Your task to perform on an android device: turn off improve location accuracy Image 0: 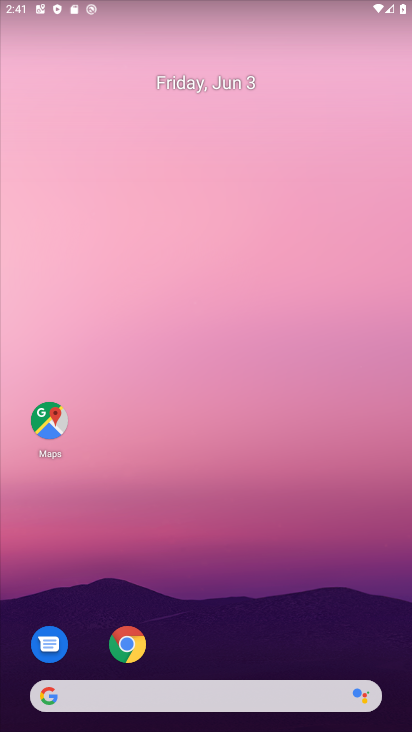
Step 0: drag from (235, 639) to (231, 340)
Your task to perform on an android device: turn off improve location accuracy Image 1: 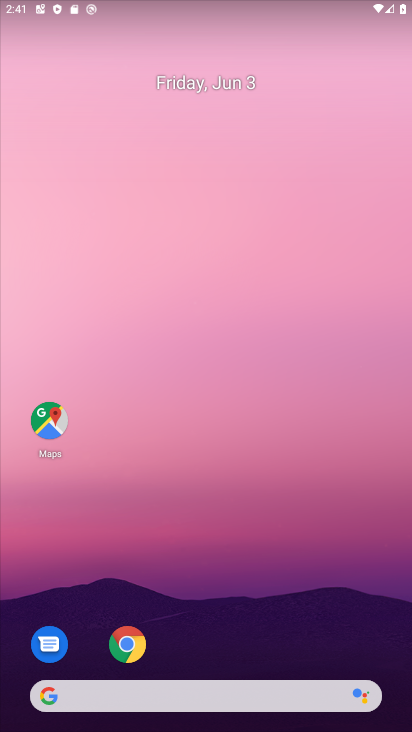
Step 1: drag from (221, 660) to (226, 253)
Your task to perform on an android device: turn off improve location accuracy Image 2: 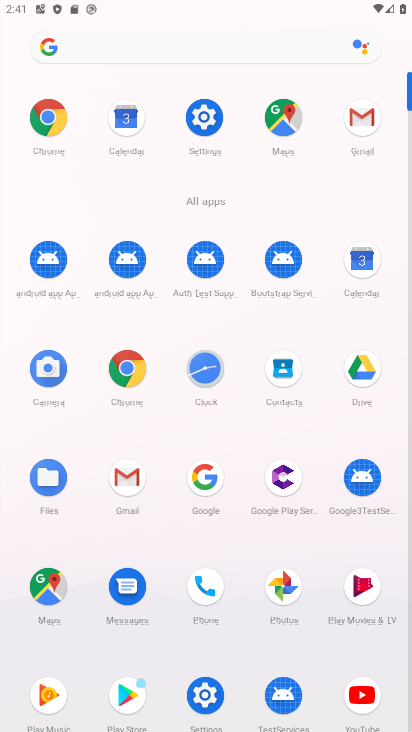
Step 2: click (214, 119)
Your task to perform on an android device: turn off improve location accuracy Image 3: 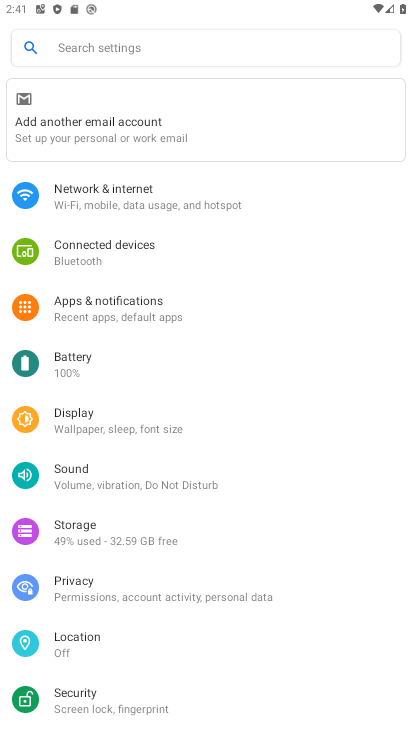
Step 3: click (144, 643)
Your task to perform on an android device: turn off improve location accuracy Image 4: 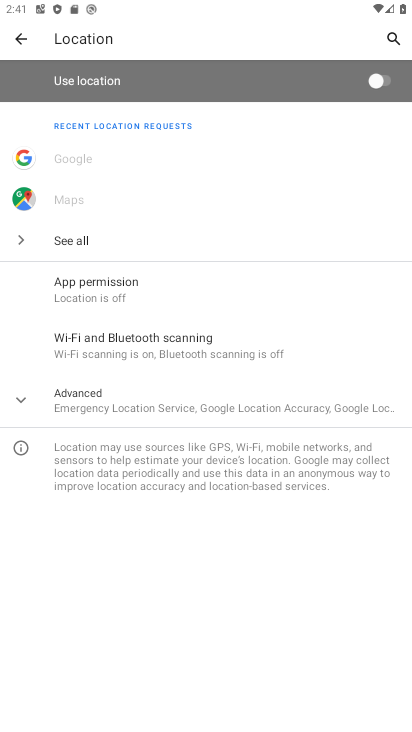
Step 4: click (156, 408)
Your task to perform on an android device: turn off improve location accuracy Image 5: 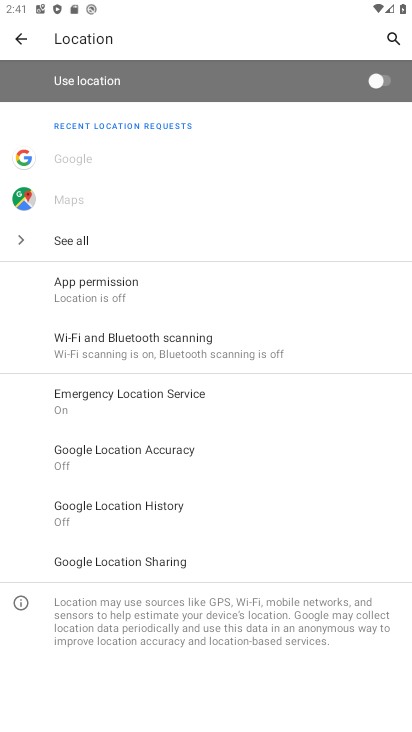
Step 5: click (184, 456)
Your task to perform on an android device: turn off improve location accuracy Image 6: 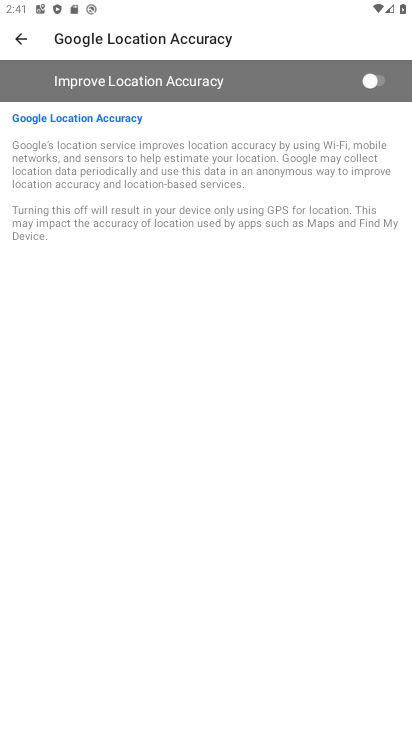
Step 6: task complete